Your task to perform on an android device: open sync settings in chrome Image 0: 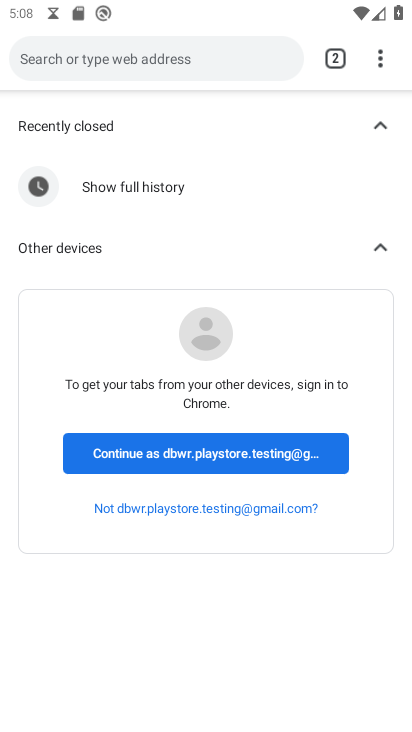
Step 0: press home button
Your task to perform on an android device: open sync settings in chrome Image 1: 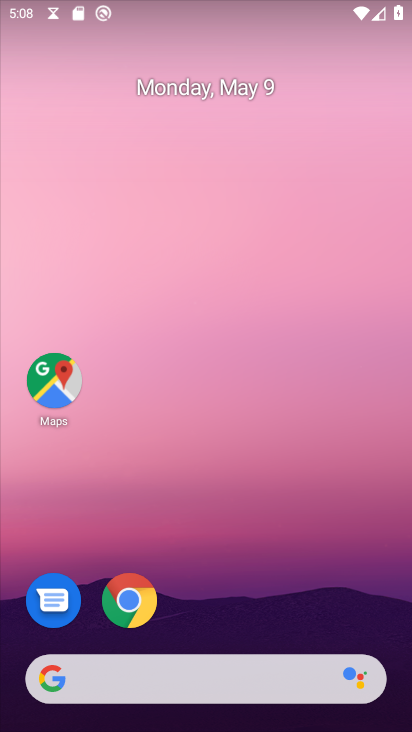
Step 1: drag from (296, 651) to (319, 158)
Your task to perform on an android device: open sync settings in chrome Image 2: 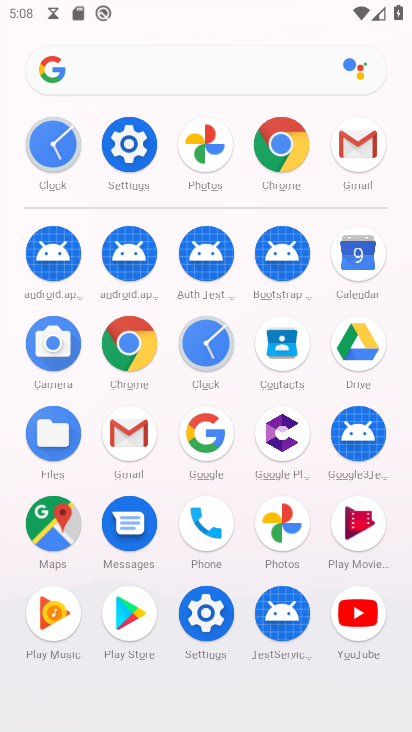
Step 2: click (143, 330)
Your task to perform on an android device: open sync settings in chrome Image 3: 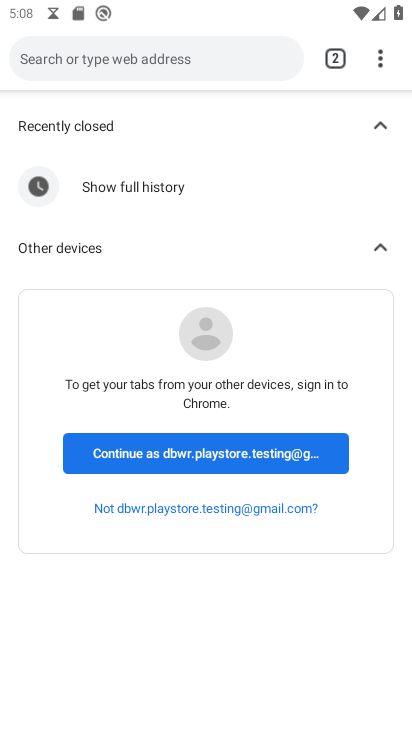
Step 3: click (378, 54)
Your task to perform on an android device: open sync settings in chrome Image 4: 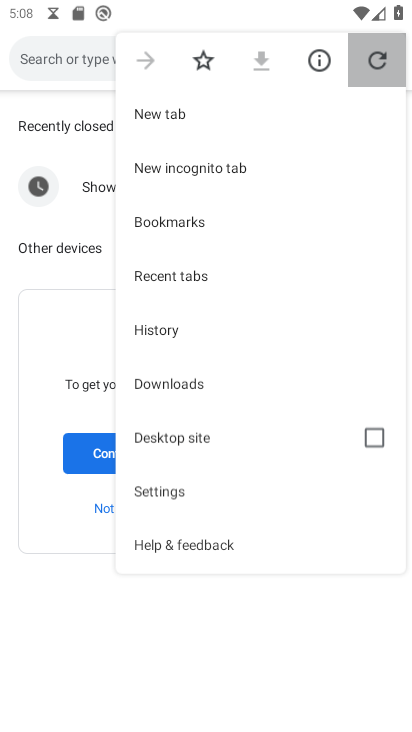
Step 4: drag from (378, 54) to (188, 508)
Your task to perform on an android device: open sync settings in chrome Image 5: 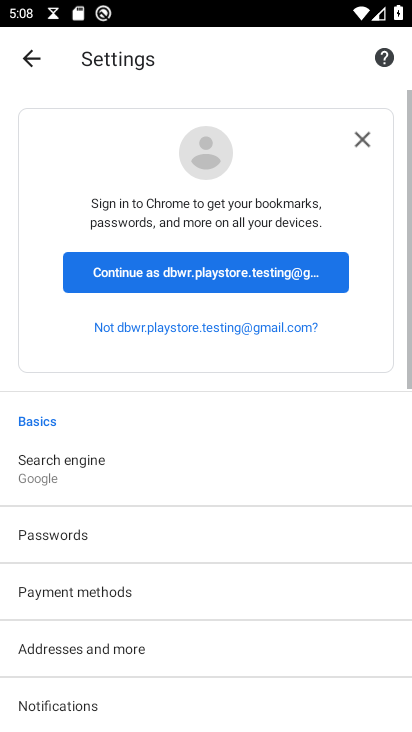
Step 5: drag from (169, 626) to (253, 153)
Your task to perform on an android device: open sync settings in chrome Image 6: 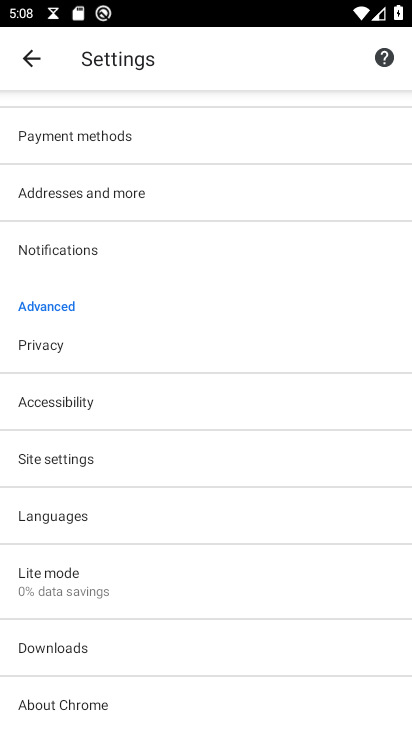
Step 6: click (122, 478)
Your task to perform on an android device: open sync settings in chrome Image 7: 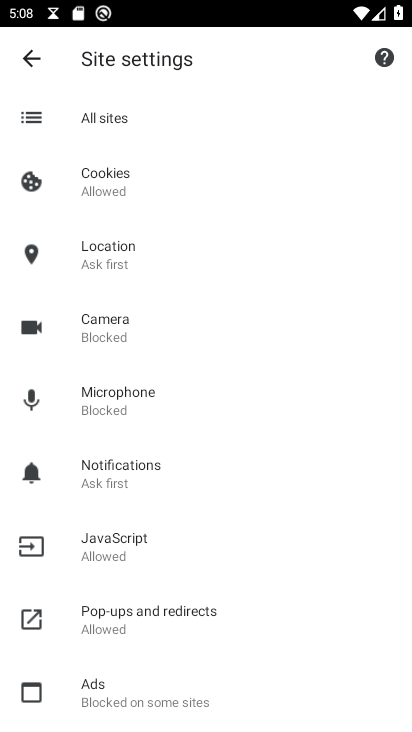
Step 7: drag from (201, 666) to (241, 345)
Your task to perform on an android device: open sync settings in chrome Image 8: 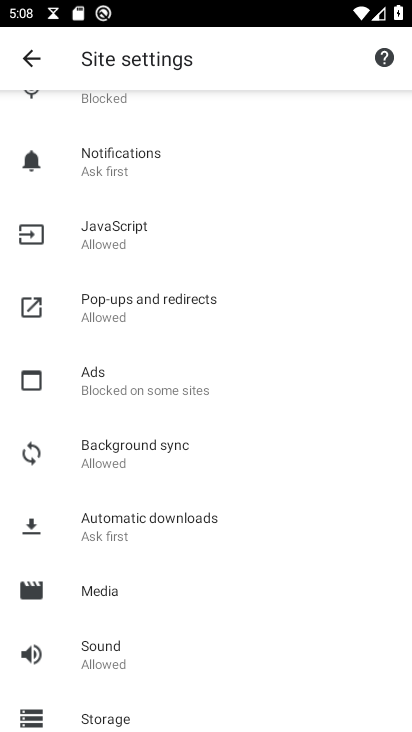
Step 8: click (181, 455)
Your task to perform on an android device: open sync settings in chrome Image 9: 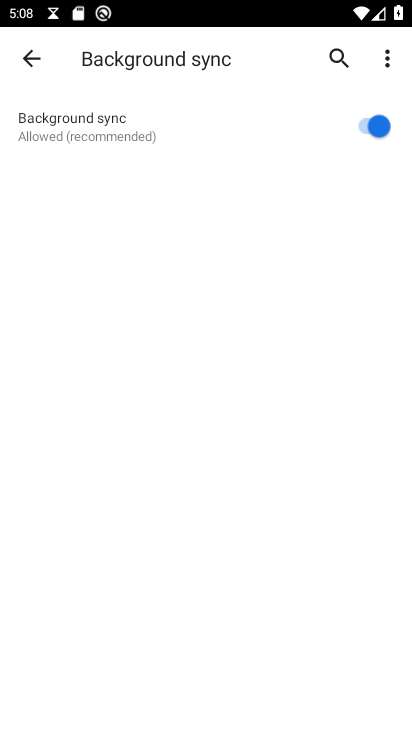
Step 9: task complete